Your task to perform on an android device: Search for Mexican restaurants on Maps Image 0: 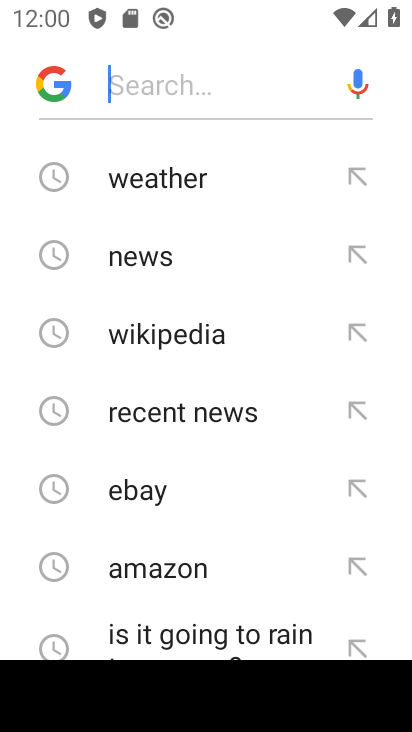
Step 0: press back button
Your task to perform on an android device: Search for Mexican restaurants on Maps Image 1: 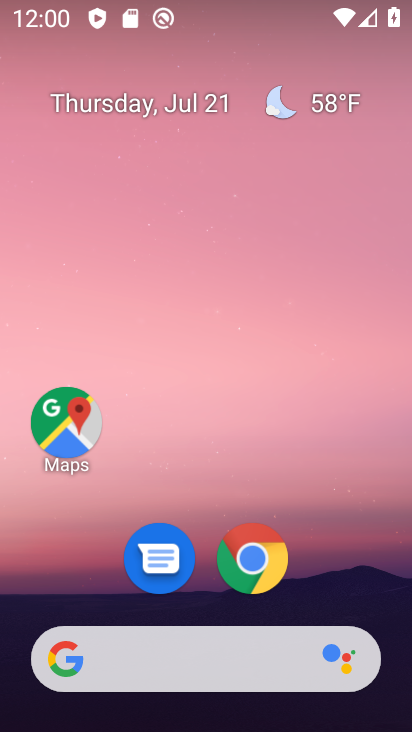
Step 1: click (72, 411)
Your task to perform on an android device: Search for Mexican restaurants on Maps Image 2: 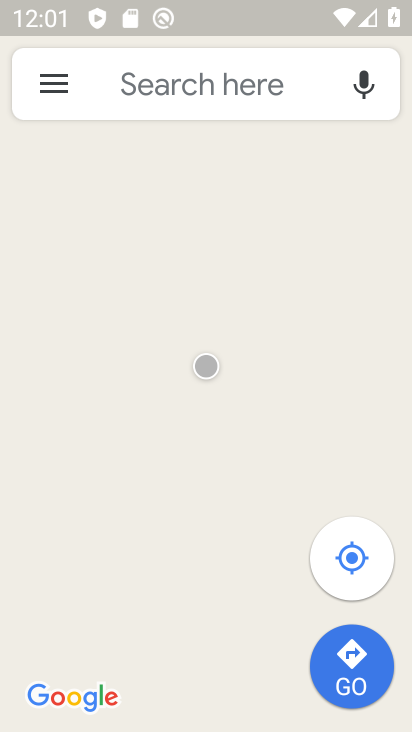
Step 2: click (166, 101)
Your task to perform on an android device: Search for Mexican restaurants on Maps Image 3: 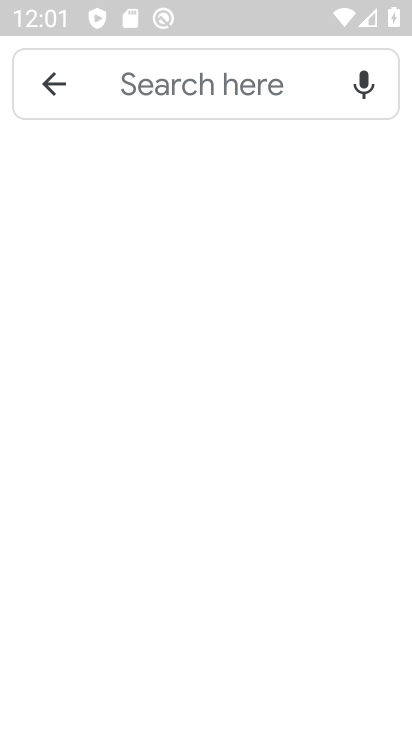
Step 3: click (175, 89)
Your task to perform on an android device: Search for Mexican restaurants on Maps Image 4: 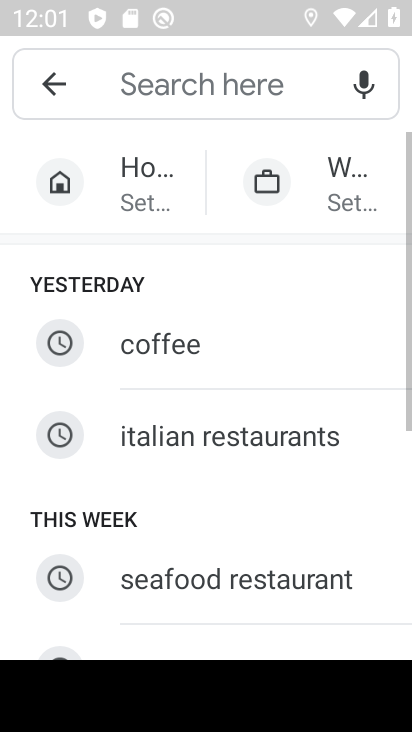
Step 4: drag from (196, 544) to (265, 322)
Your task to perform on an android device: Search for Mexican restaurants on Maps Image 5: 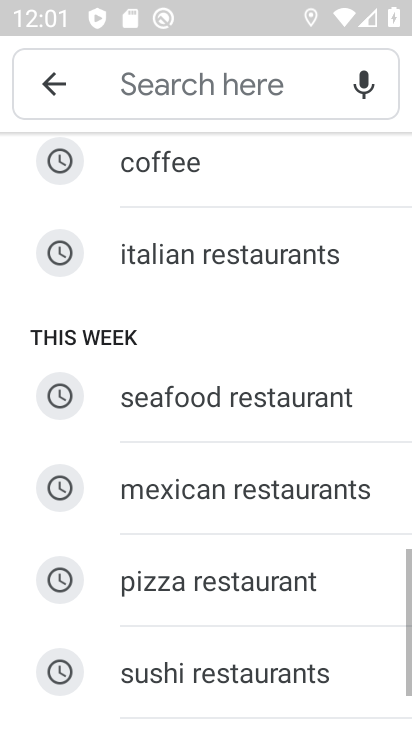
Step 5: click (183, 500)
Your task to perform on an android device: Search for Mexican restaurants on Maps Image 6: 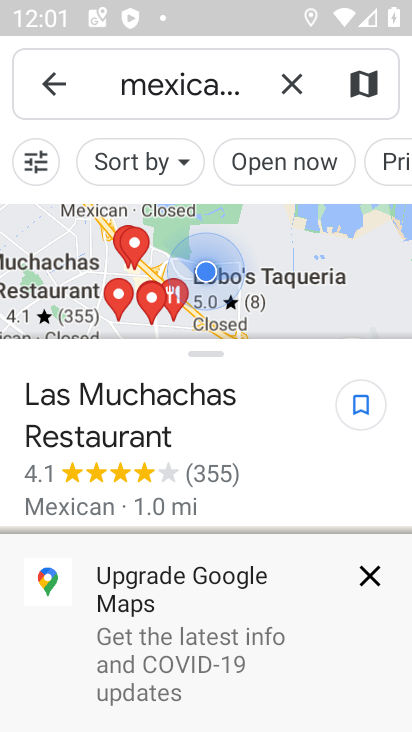
Step 6: task complete